Your task to perform on an android device: Open calendar and show me the fourth week of next month Image 0: 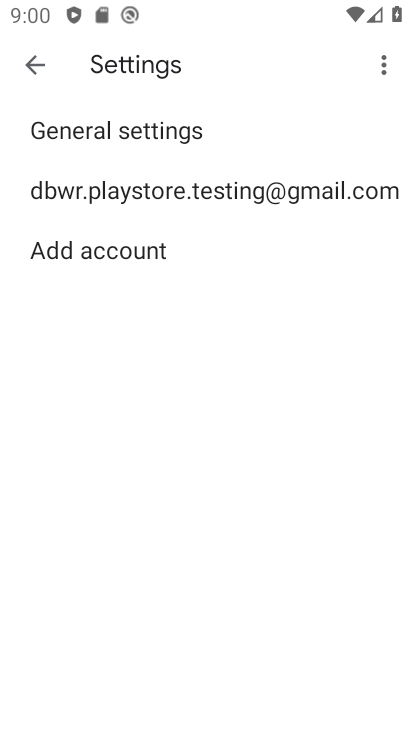
Step 0: press home button
Your task to perform on an android device: Open calendar and show me the fourth week of next month Image 1: 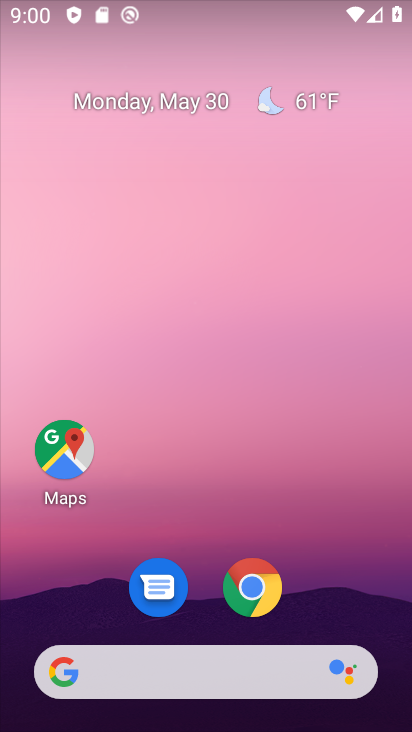
Step 1: drag from (227, 623) to (171, 20)
Your task to perform on an android device: Open calendar and show me the fourth week of next month Image 2: 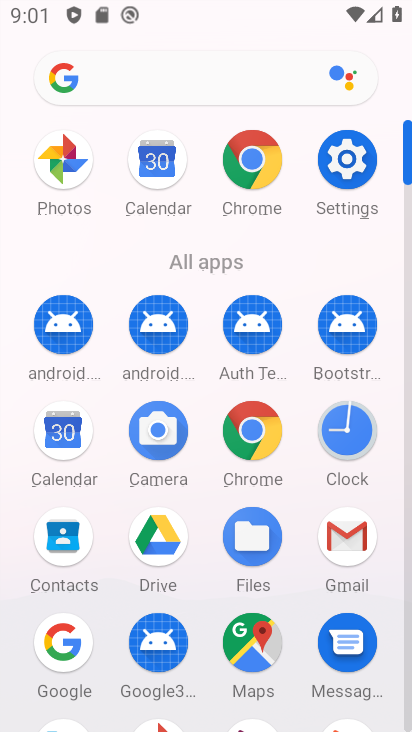
Step 2: click (55, 449)
Your task to perform on an android device: Open calendar and show me the fourth week of next month Image 3: 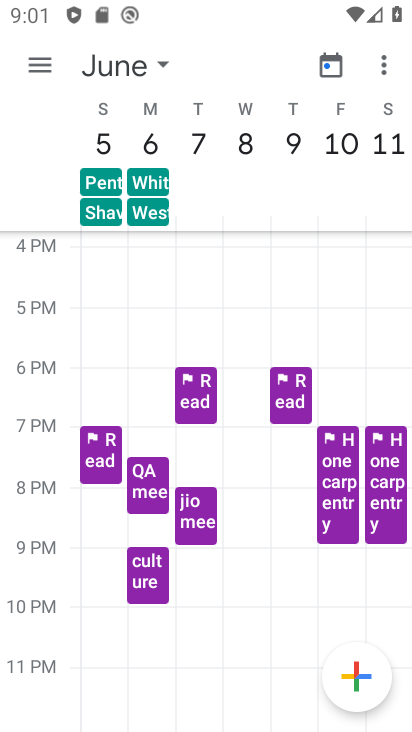
Step 3: task complete